Your task to perform on an android device: Open the map Image 0: 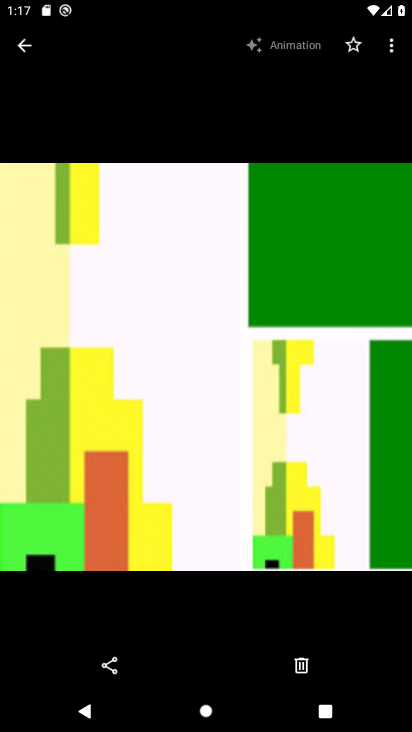
Step 0: press home button
Your task to perform on an android device: Open the map Image 1: 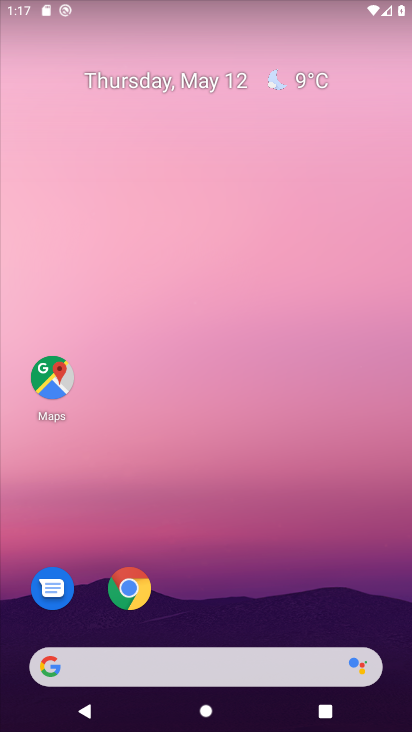
Step 1: drag from (265, 545) to (222, 11)
Your task to perform on an android device: Open the map Image 2: 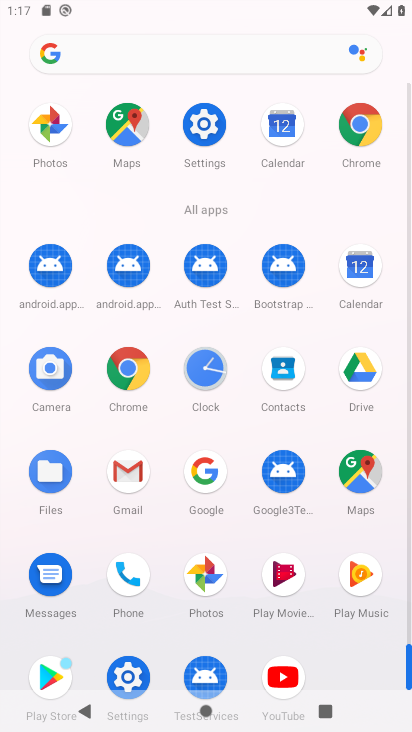
Step 2: click (368, 474)
Your task to perform on an android device: Open the map Image 3: 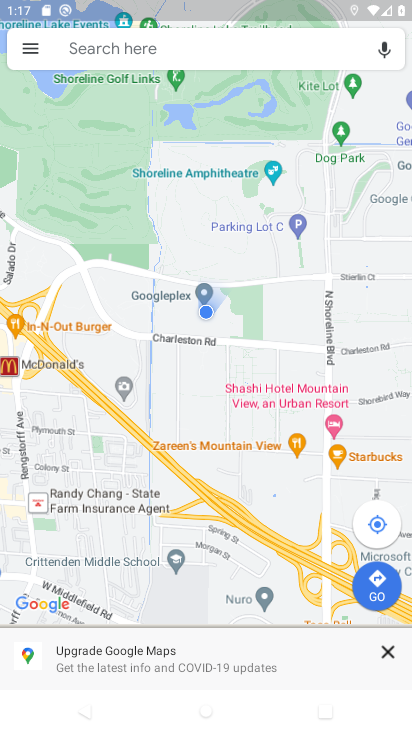
Step 3: task complete